Your task to perform on an android device: Go to CNN.com Image 0: 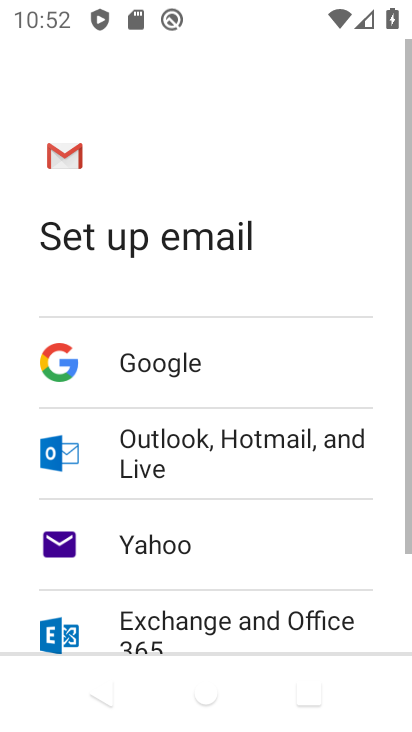
Step 0: press home button
Your task to perform on an android device: Go to CNN.com Image 1: 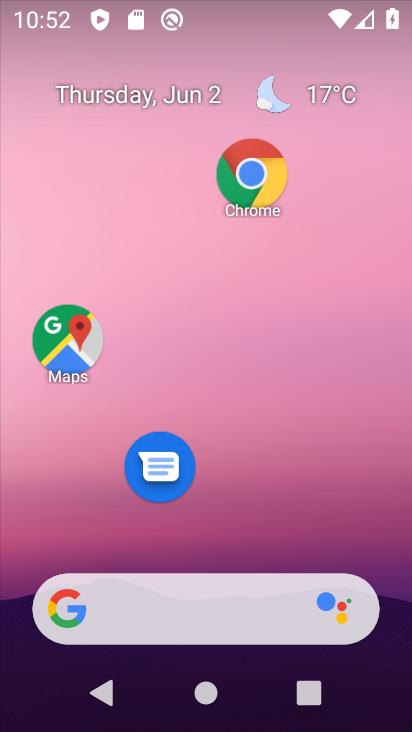
Step 1: click (60, 626)
Your task to perform on an android device: Go to CNN.com Image 2: 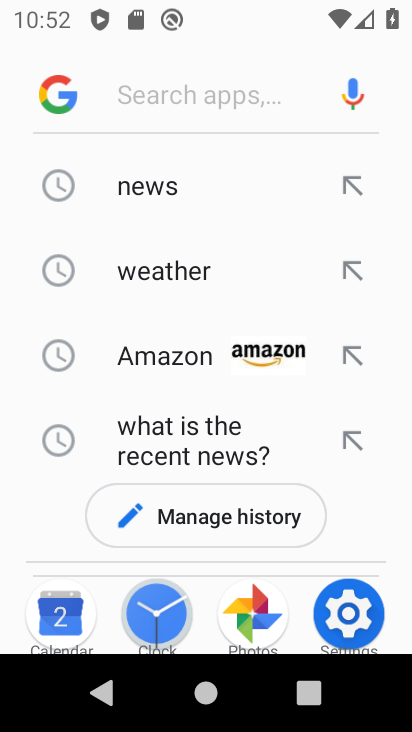
Step 2: type "CNN.com"
Your task to perform on an android device: Go to CNN.com Image 3: 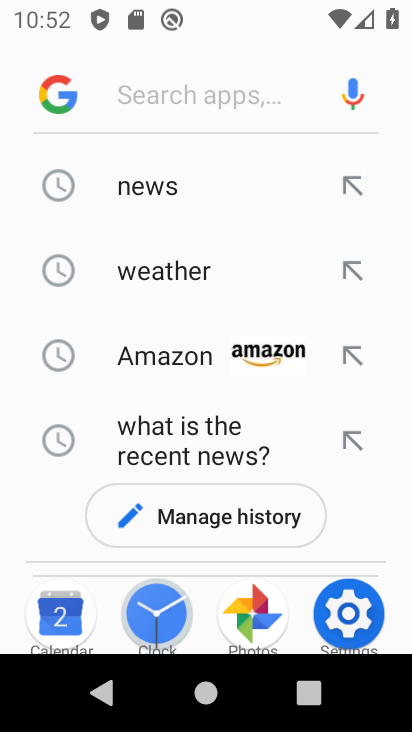
Step 3: click (217, 105)
Your task to perform on an android device: Go to CNN.com Image 4: 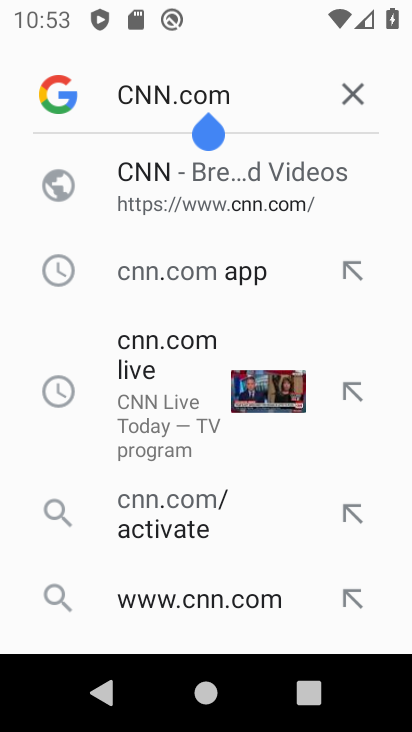
Step 4: click (153, 184)
Your task to perform on an android device: Go to CNN.com Image 5: 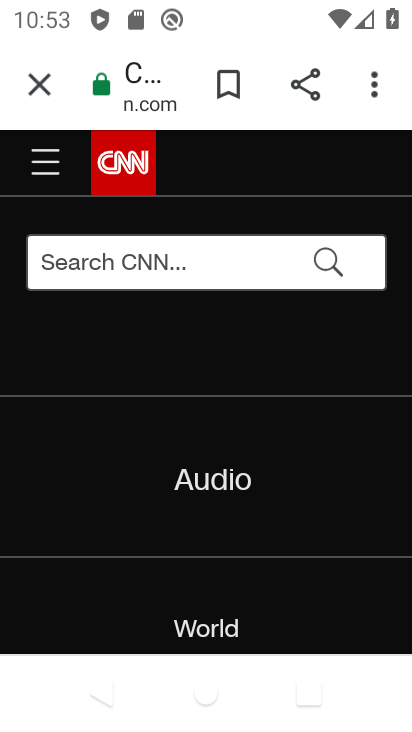
Step 5: task complete